Your task to perform on an android device: toggle sleep mode Image 0: 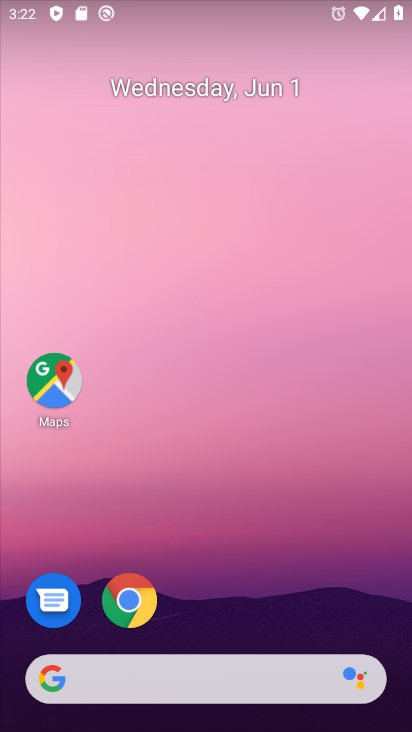
Step 0: drag from (202, 610) to (235, 228)
Your task to perform on an android device: toggle sleep mode Image 1: 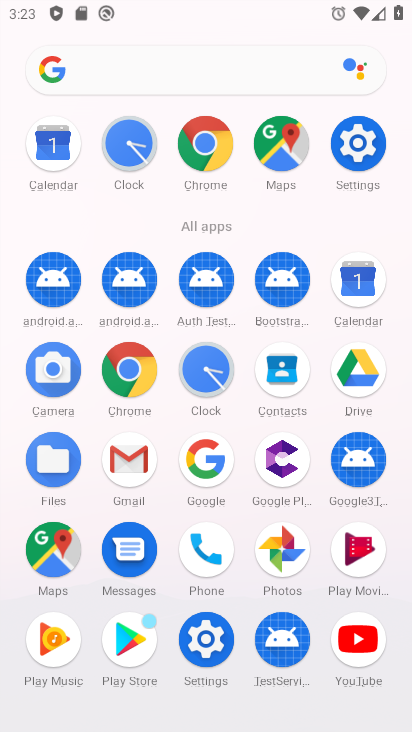
Step 1: click (360, 166)
Your task to perform on an android device: toggle sleep mode Image 2: 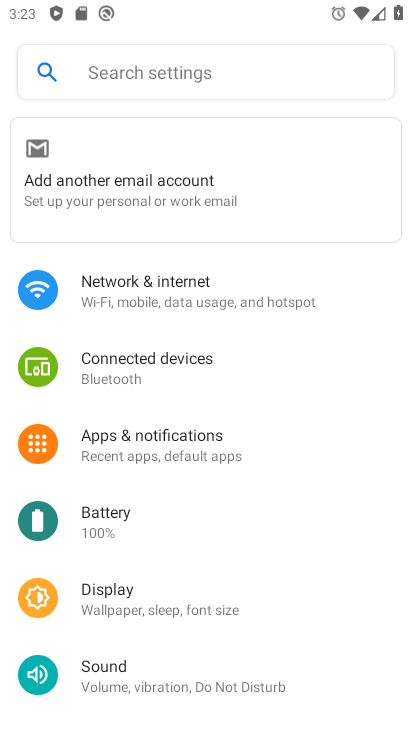
Step 2: task complete